Your task to perform on an android device: read, delete, or share a saved page in the chrome app Image 0: 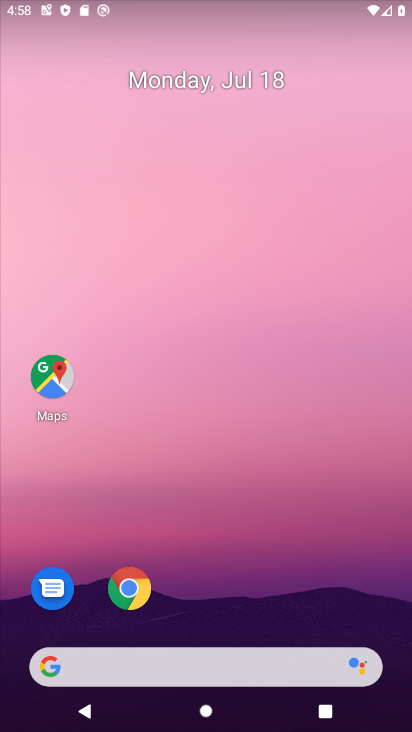
Step 0: click (127, 581)
Your task to perform on an android device: read, delete, or share a saved page in the chrome app Image 1: 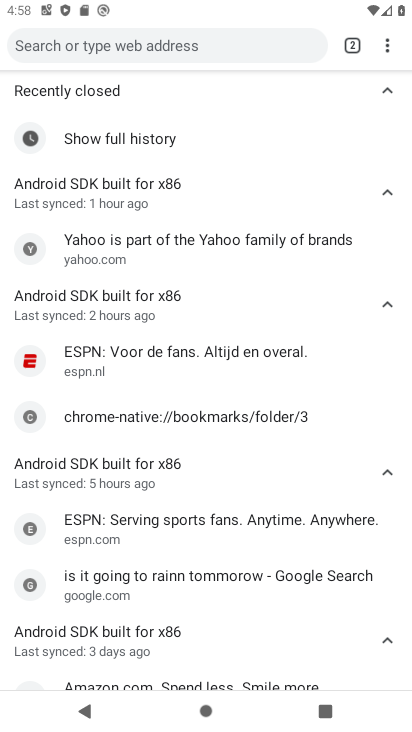
Step 1: click (390, 37)
Your task to perform on an android device: read, delete, or share a saved page in the chrome app Image 2: 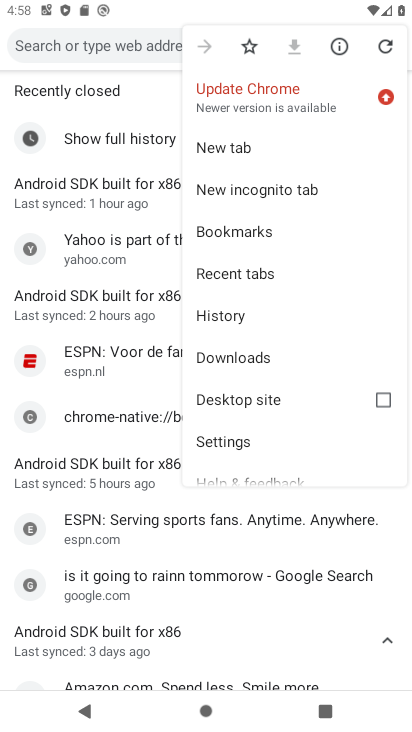
Step 2: click (263, 364)
Your task to perform on an android device: read, delete, or share a saved page in the chrome app Image 3: 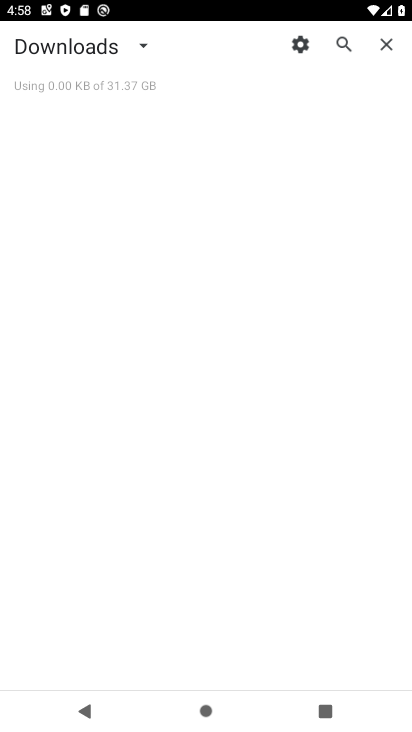
Step 3: click (136, 54)
Your task to perform on an android device: read, delete, or share a saved page in the chrome app Image 4: 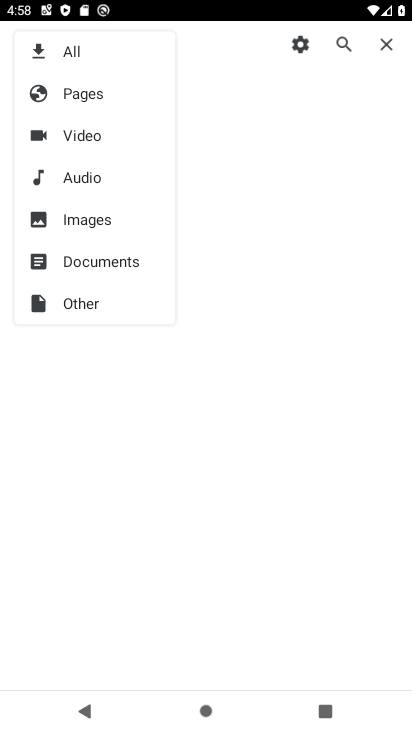
Step 4: click (95, 104)
Your task to perform on an android device: read, delete, or share a saved page in the chrome app Image 5: 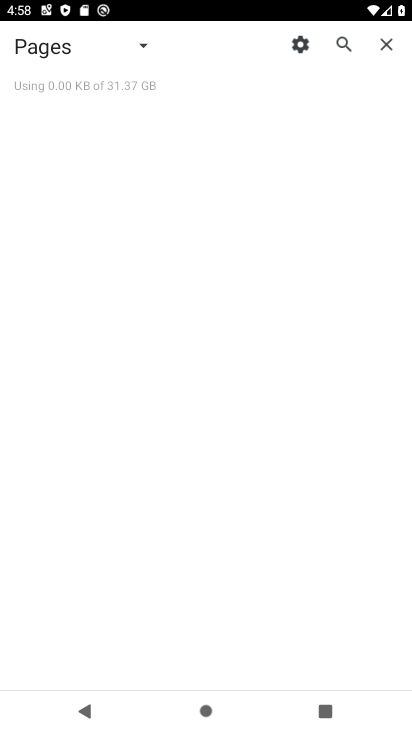
Step 5: task complete